Your task to perform on an android device: toggle pop-ups in chrome Image 0: 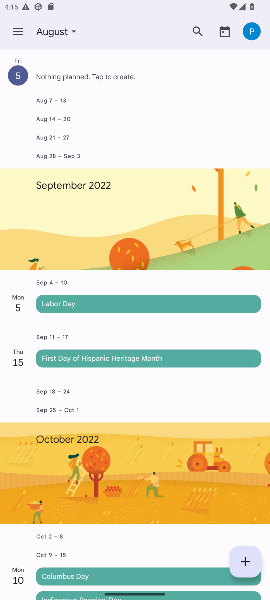
Step 0: press home button
Your task to perform on an android device: toggle pop-ups in chrome Image 1: 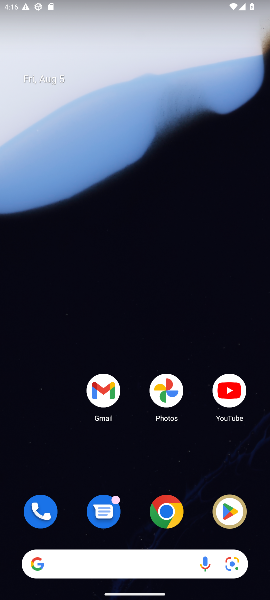
Step 1: click (153, 510)
Your task to perform on an android device: toggle pop-ups in chrome Image 2: 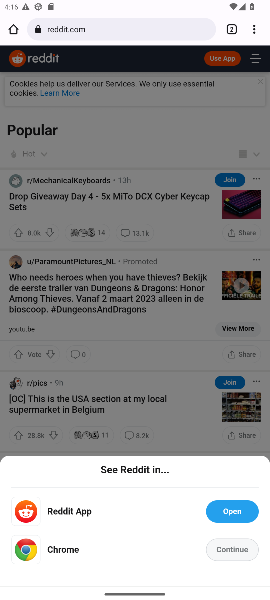
Step 2: drag from (257, 30) to (156, 364)
Your task to perform on an android device: toggle pop-ups in chrome Image 3: 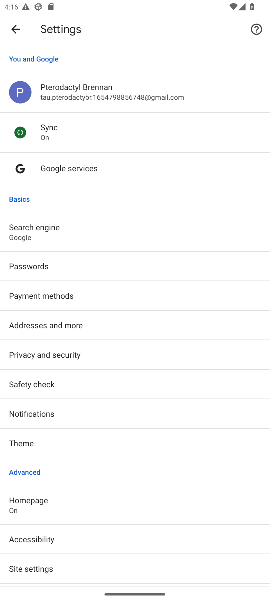
Step 3: click (59, 568)
Your task to perform on an android device: toggle pop-ups in chrome Image 4: 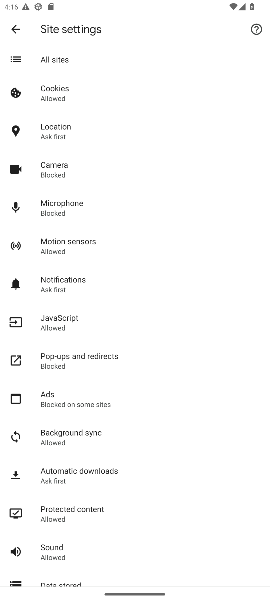
Step 4: click (69, 358)
Your task to perform on an android device: toggle pop-ups in chrome Image 5: 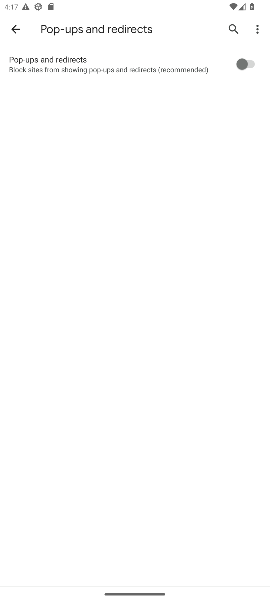
Step 5: task complete